Your task to perform on an android device: Find coffee shops on Maps Image 0: 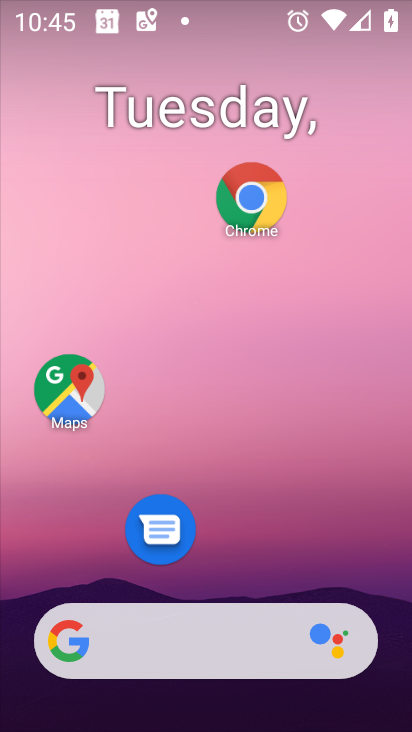
Step 0: click (65, 386)
Your task to perform on an android device: Find coffee shops on Maps Image 1: 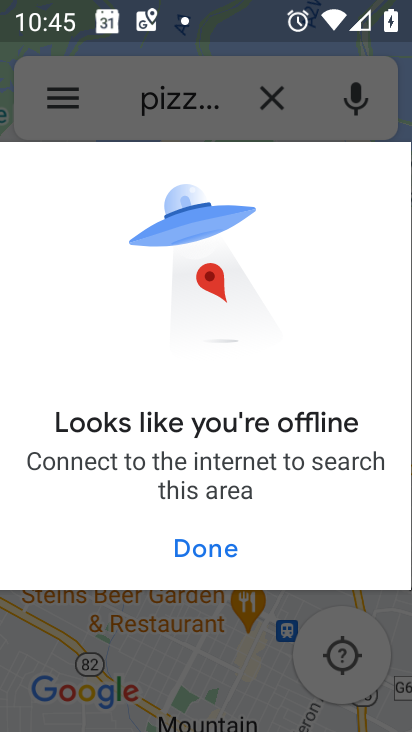
Step 1: click (227, 535)
Your task to perform on an android device: Find coffee shops on Maps Image 2: 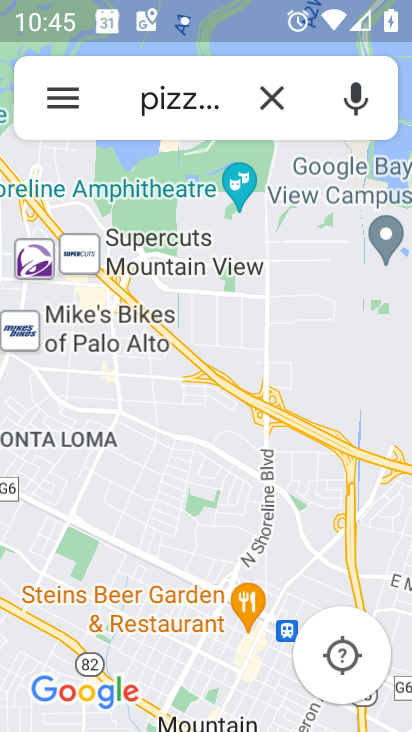
Step 2: click (271, 109)
Your task to perform on an android device: Find coffee shops on Maps Image 3: 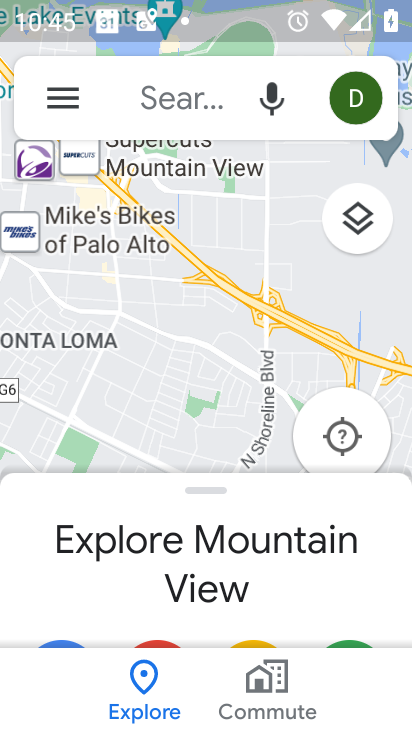
Step 3: click (198, 104)
Your task to perform on an android device: Find coffee shops on Maps Image 4: 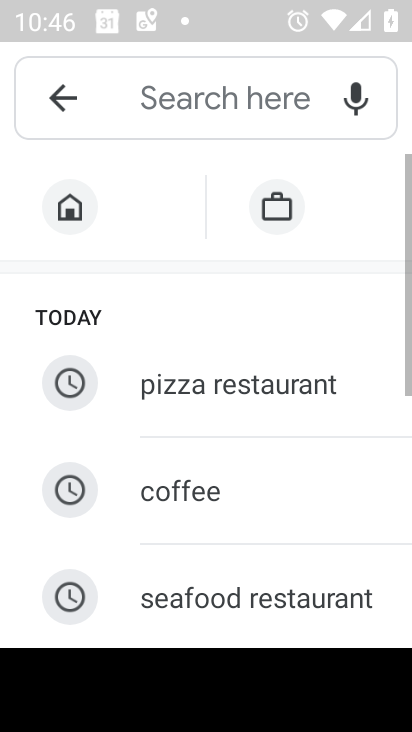
Step 4: click (283, 480)
Your task to perform on an android device: Find coffee shops on Maps Image 5: 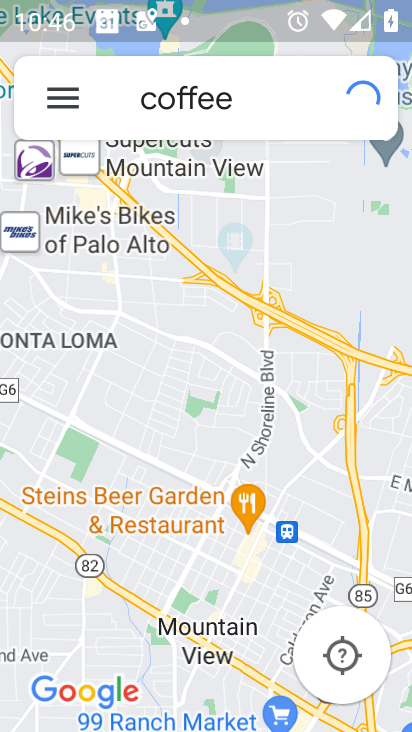
Step 5: task complete